Your task to perform on an android device: stop showing notifications on the lock screen Image 0: 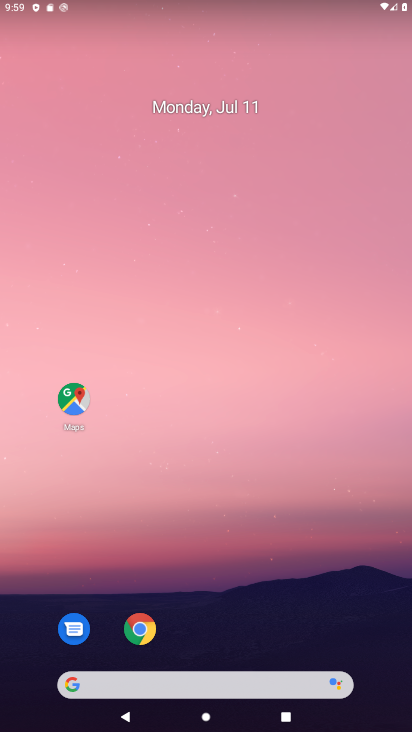
Step 0: drag from (212, 617) to (241, 214)
Your task to perform on an android device: stop showing notifications on the lock screen Image 1: 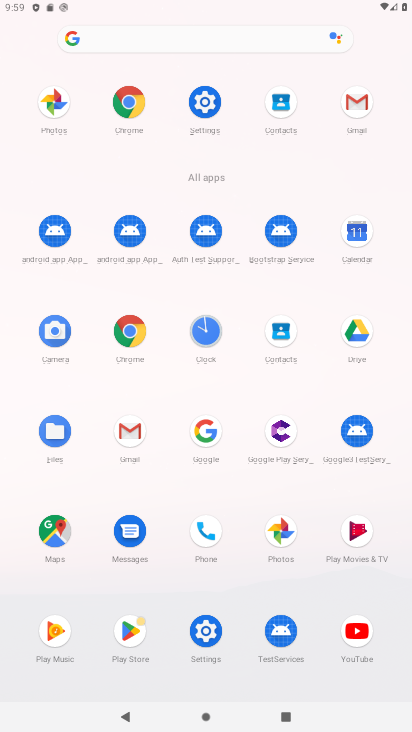
Step 1: click (224, 120)
Your task to perform on an android device: stop showing notifications on the lock screen Image 2: 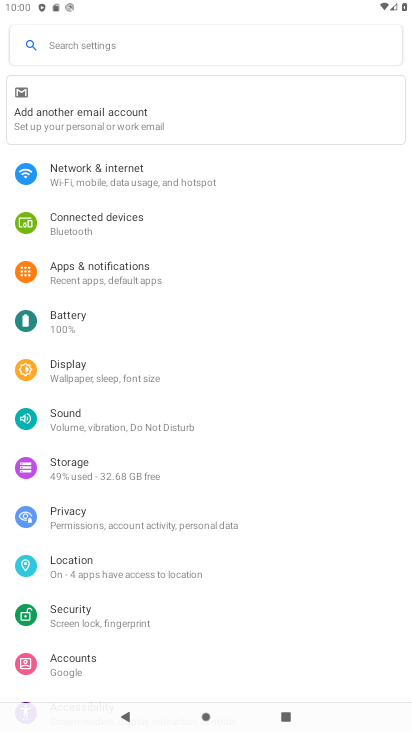
Step 2: click (162, 286)
Your task to perform on an android device: stop showing notifications on the lock screen Image 3: 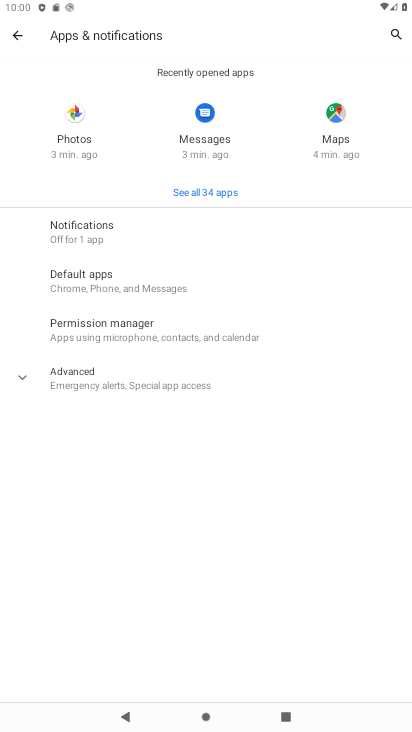
Step 3: click (127, 230)
Your task to perform on an android device: stop showing notifications on the lock screen Image 4: 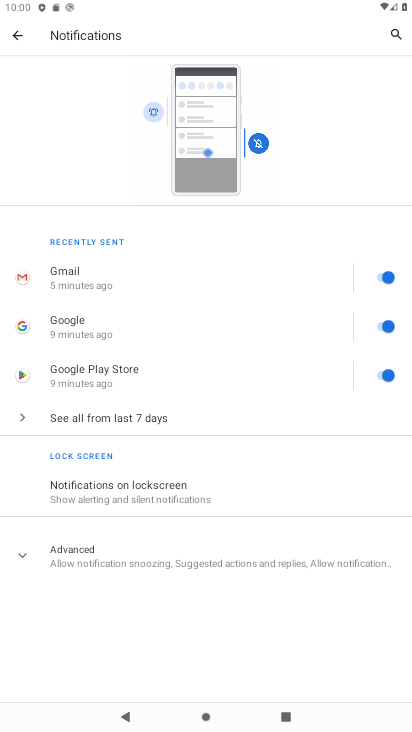
Step 4: click (248, 491)
Your task to perform on an android device: stop showing notifications on the lock screen Image 5: 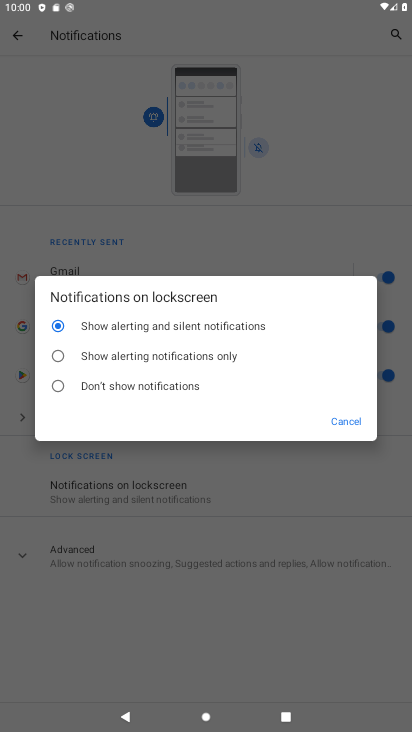
Step 5: click (92, 390)
Your task to perform on an android device: stop showing notifications on the lock screen Image 6: 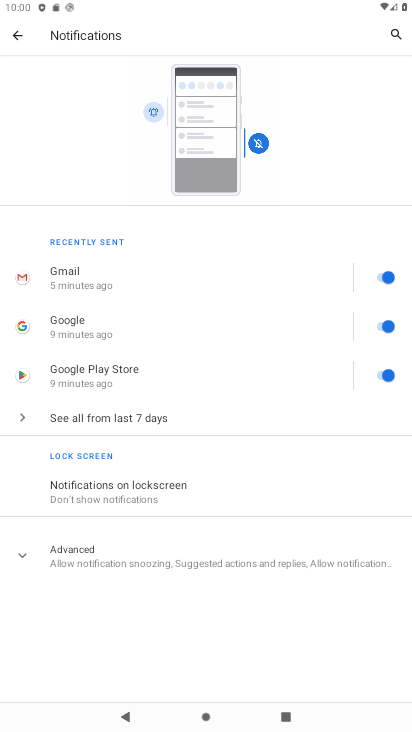
Step 6: task complete